Your task to perform on an android device: empty trash in google photos Image 0: 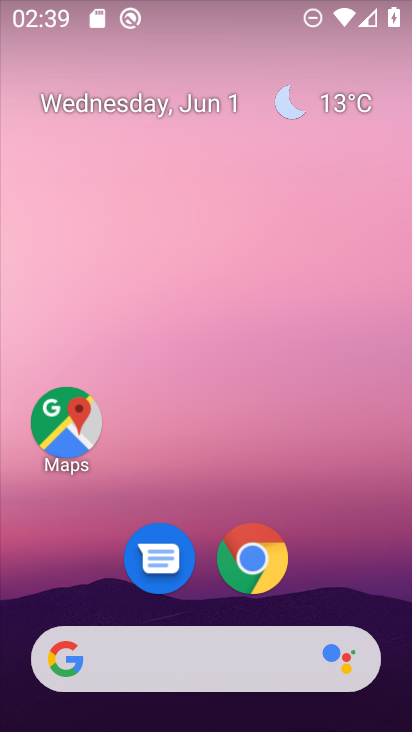
Step 0: drag from (395, 656) to (344, 89)
Your task to perform on an android device: empty trash in google photos Image 1: 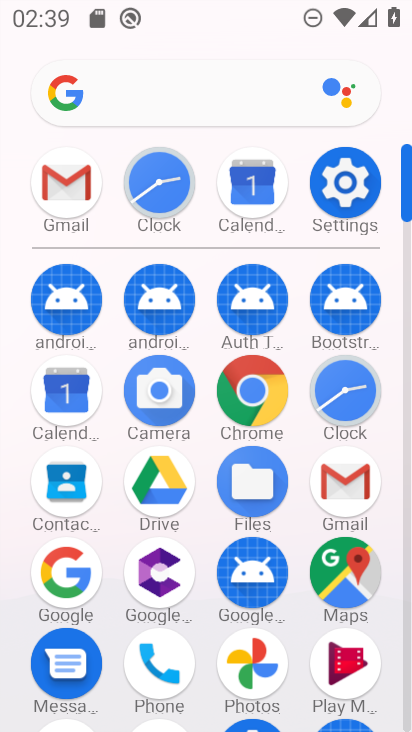
Step 1: click (262, 658)
Your task to perform on an android device: empty trash in google photos Image 2: 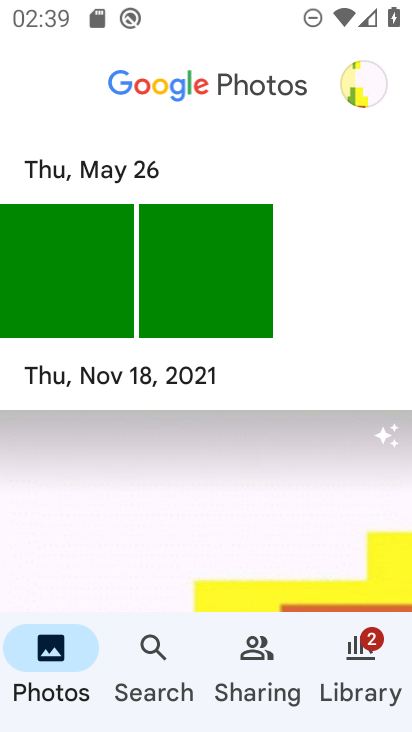
Step 2: drag from (313, 446) to (314, 181)
Your task to perform on an android device: empty trash in google photos Image 3: 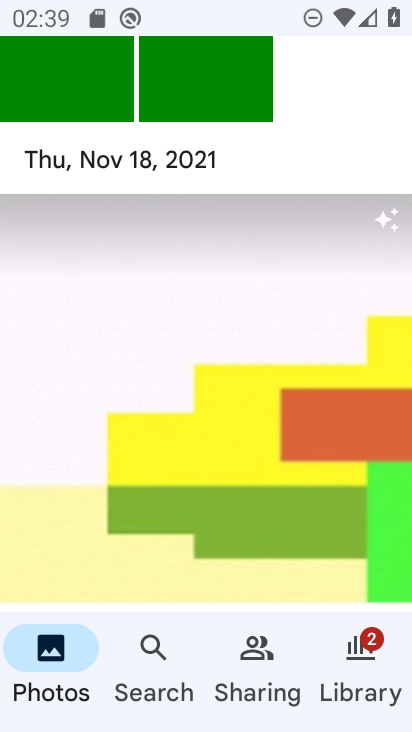
Step 3: drag from (365, 112) to (381, 491)
Your task to perform on an android device: empty trash in google photos Image 4: 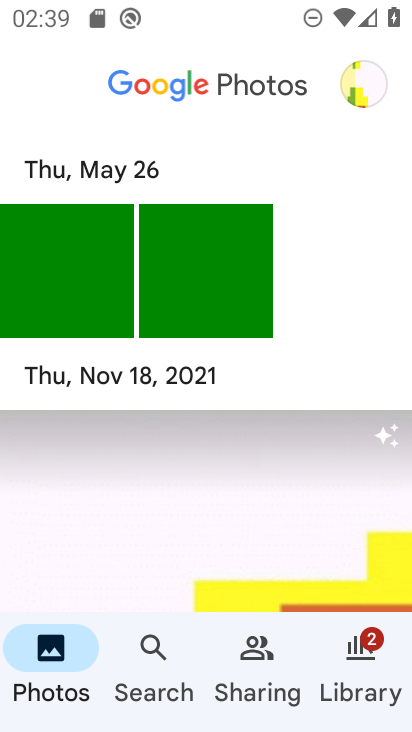
Step 4: click (357, 84)
Your task to perform on an android device: empty trash in google photos Image 5: 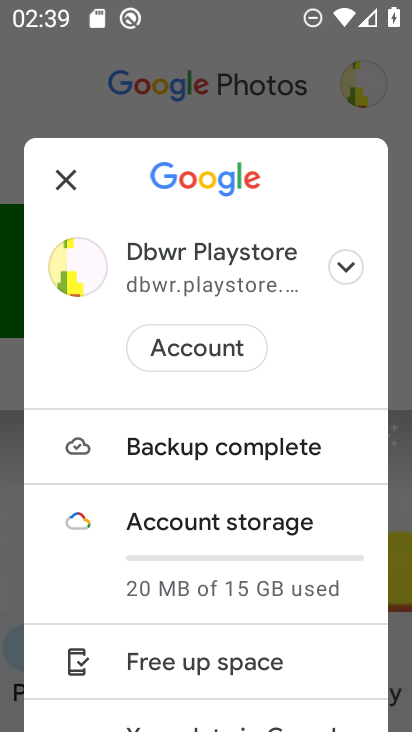
Step 5: task complete